Your task to perform on an android device: Check the news Image 0: 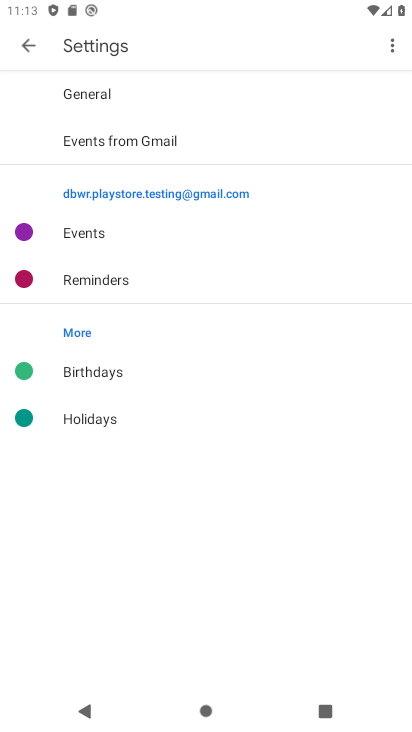
Step 0: press home button
Your task to perform on an android device: Check the news Image 1: 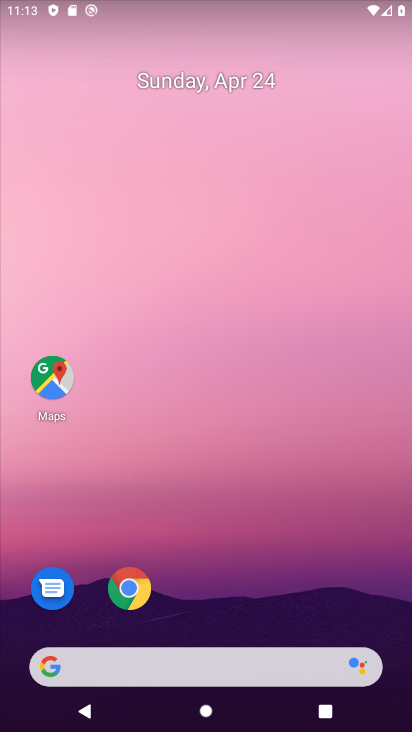
Step 1: click (207, 660)
Your task to perform on an android device: Check the news Image 2: 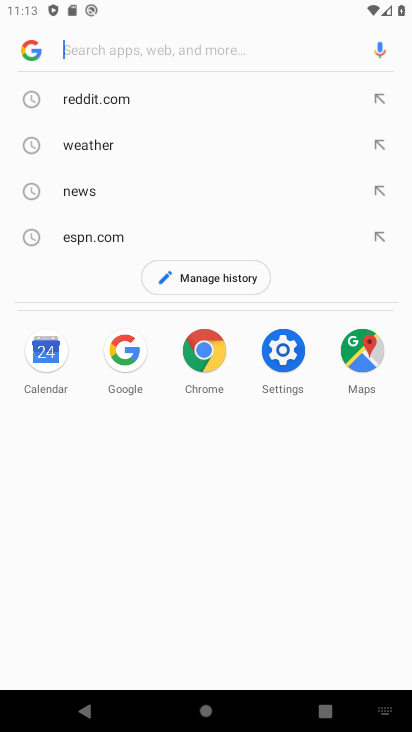
Step 2: click (98, 187)
Your task to perform on an android device: Check the news Image 3: 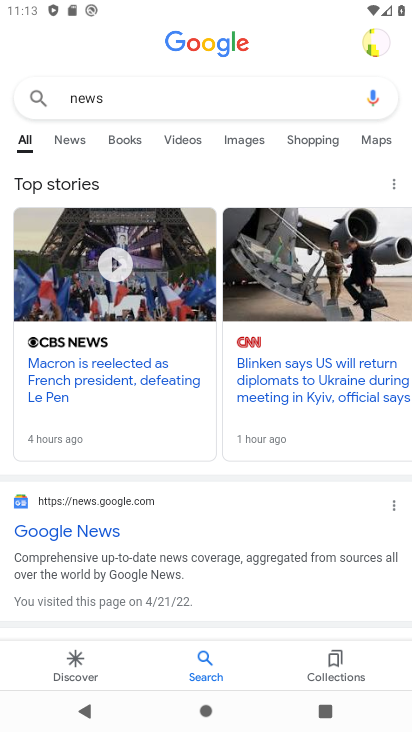
Step 3: click (72, 139)
Your task to perform on an android device: Check the news Image 4: 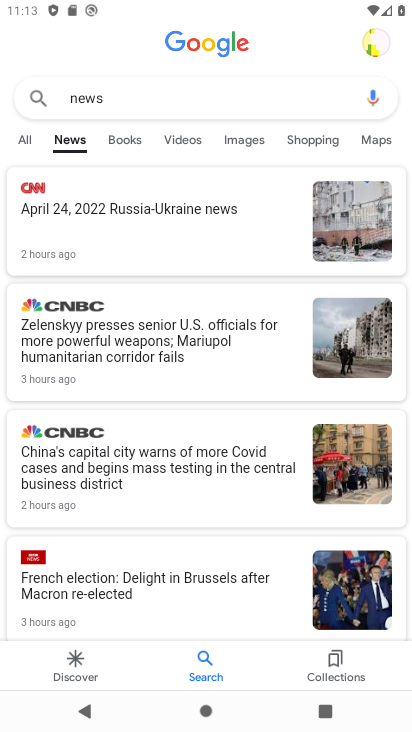
Step 4: task complete